Your task to perform on an android device: open app "NewsBreak: Local News & Alerts" (install if not already installed) Image 0: 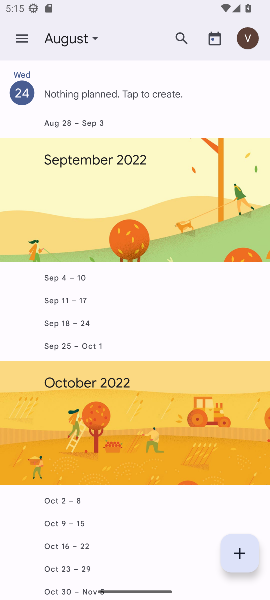
Step 0: press home button
Your task to perform on an android device: open app "NewsBreak: Local News & Alerts" (install if not already installed) Image 1: 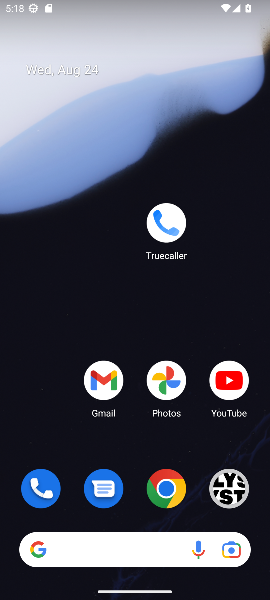
Step 1: drag from (131, 504) to (110, 50)
Your task to perform on an android device: open app "NewsBreak: Local News & Alerts" (install if not already installed) Image 2: 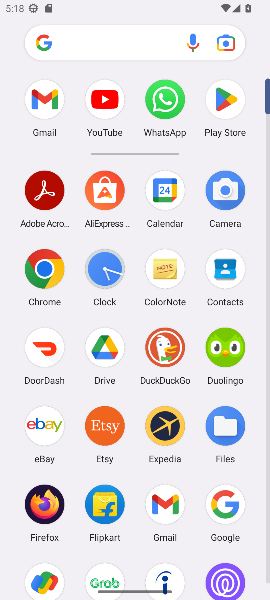
Step 2: click (214, 83)
Your task to perform on an android device: open app "NewsBreak: Local News & Alerts" (install if not already installed) Image 3: 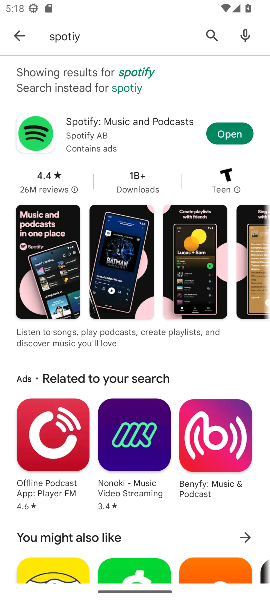
Step 3: click (213, 37)
Your task to perform on an android device: open app "NewsBreak: Local News & Alerts" (install if not already installed) Image 4: 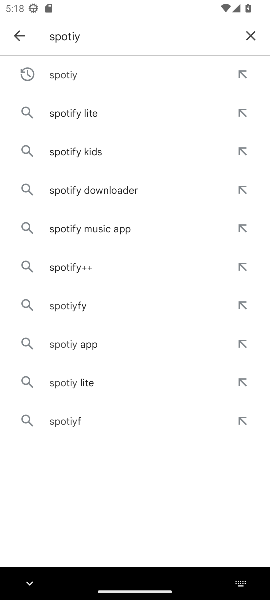
Step 4: click (250, 46)
Your task to perform on an android device: open app "NewsBreak: Local News & Alerts" (install if not already installed) Image 5: 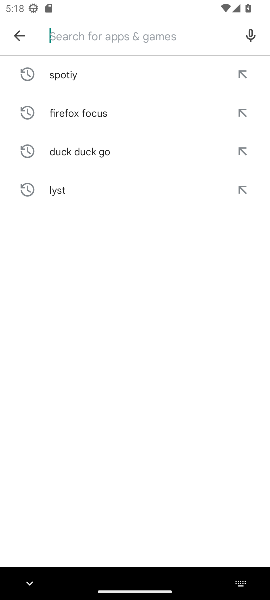
Step 5: type "newsbreak"
Your task to perform on an android device: open app "NewsBreak: Local News & Alerts" (install if not already installed) Image 6: 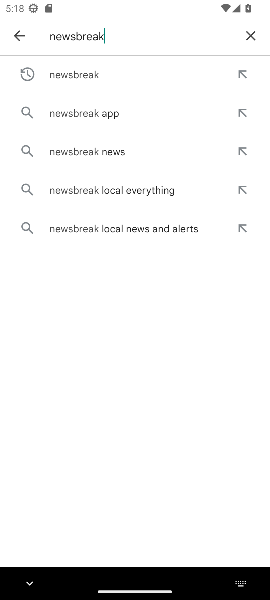
Step 6: click (63, 81)
Your task to perform on an android device: open app "NewsBreak: Local News & Alerts" (install if not already installed) Image 7: 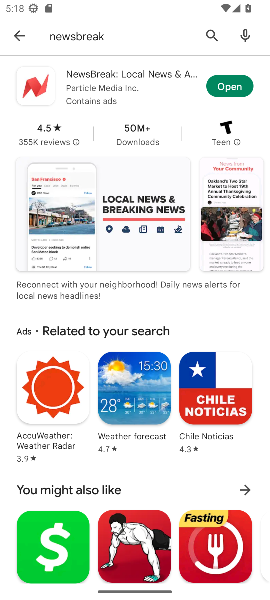
Step 7: click (235, 75)
Your task to perform on an android device: open app "NewsBreak: Local News & Alerts" (install if not already installed) Image 8: 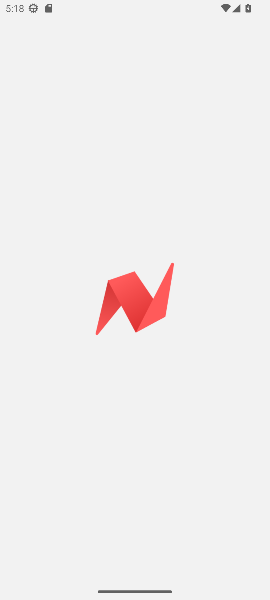
Step 8: task complete